Your task to perform on an android device: turn on showing notifications on the lock screen Image 0: 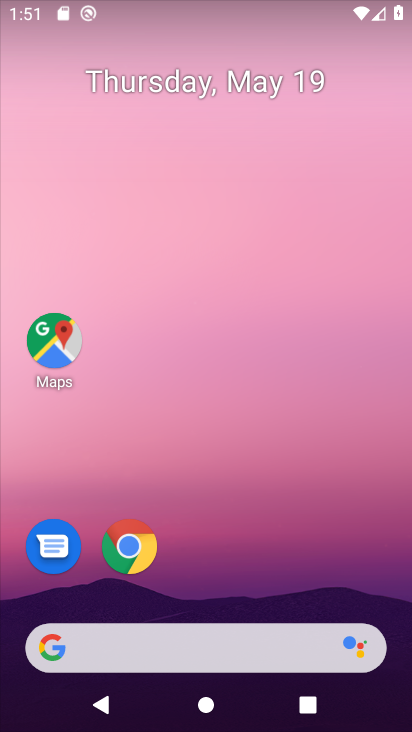
Step 0: press home button
Your task to perform on an android device: turn on showing notifications on the lock screen Image 1: 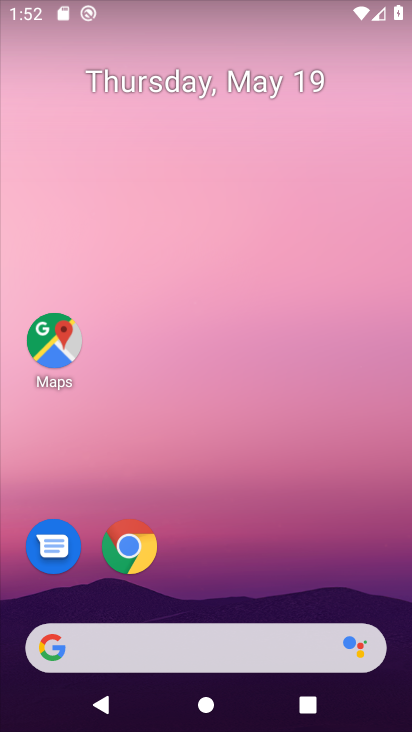
Step 1: drag from (230, 583) to (266, 12)
Your task to perform on an android device: turn on showing notifications on the lock screen Image 2: 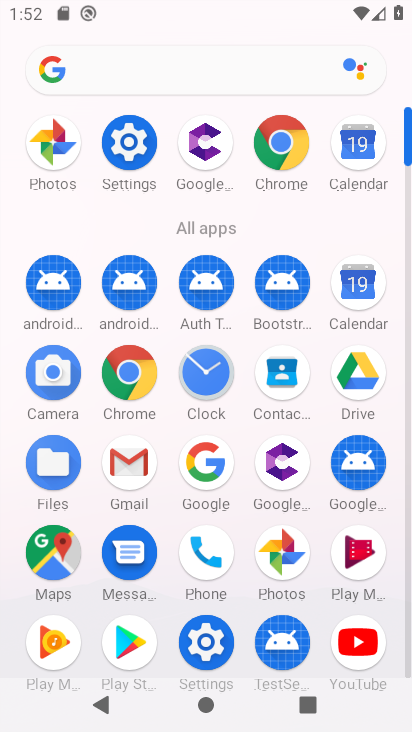
Step 2: click (128, 138)
Your task to perform on an android device: turn on showing notifications on the lock screen Image 3: 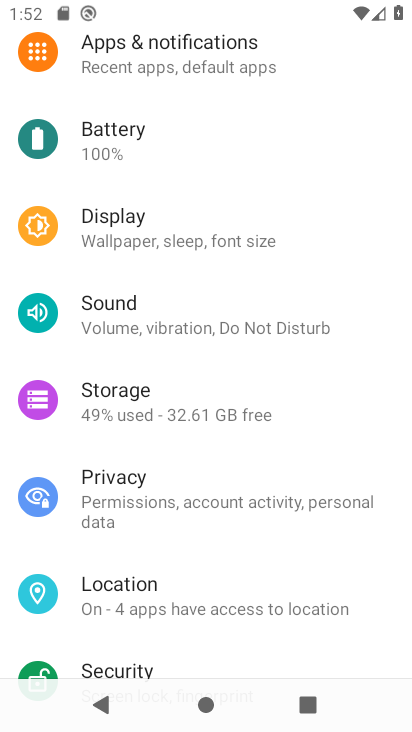
Step 3: click (176, 54)
Your task to perform on an android device: turn on showing notifications on the lock screen Image 4: 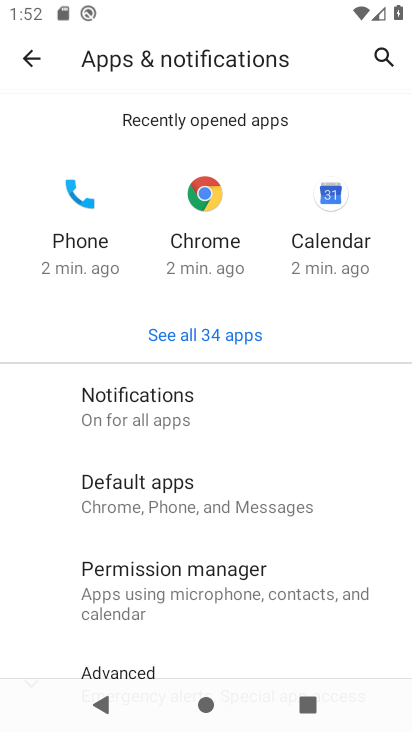
Step 4: drag from (218, 631) to (227, 257)
Your task to perform on an android device: turn on showing notifications on the lock screen Image 5: 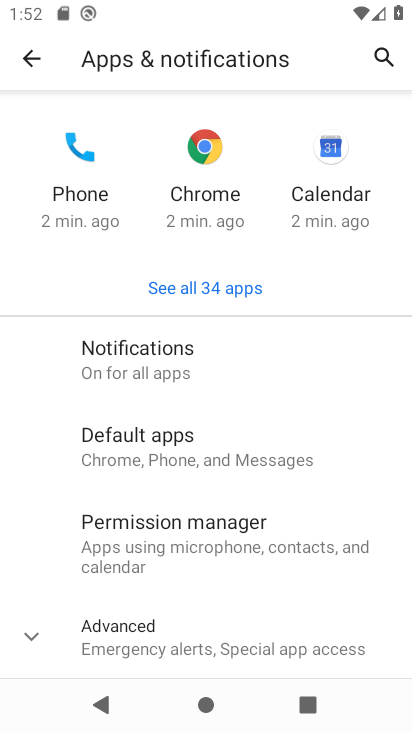
Step 5: click (208, 358)
Your task to perform on an android device: turn on showing notifications on the lock screen Image 6: 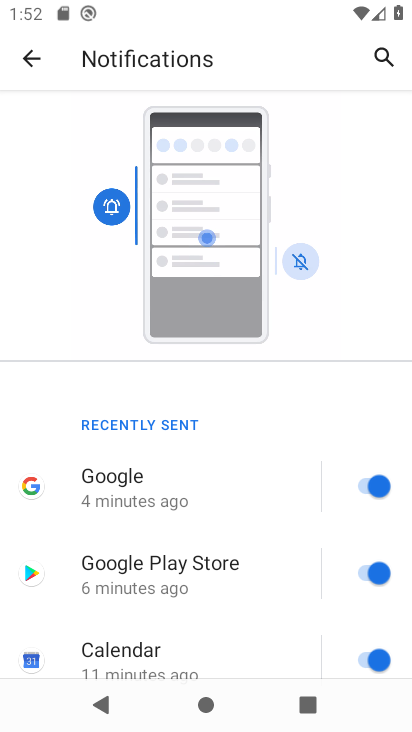
Step 6: drag from (247, 645) to (265, 259)
Your task to perform on an android device: turn on showing notifications on the lock screen Image 7: 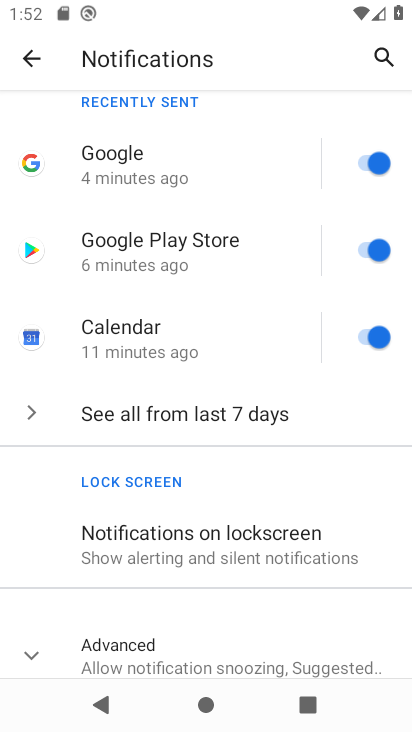
Step 7: click (343, 531)
Your task to perform on an android device: turn on showing notifications on the lock screen Image 8: 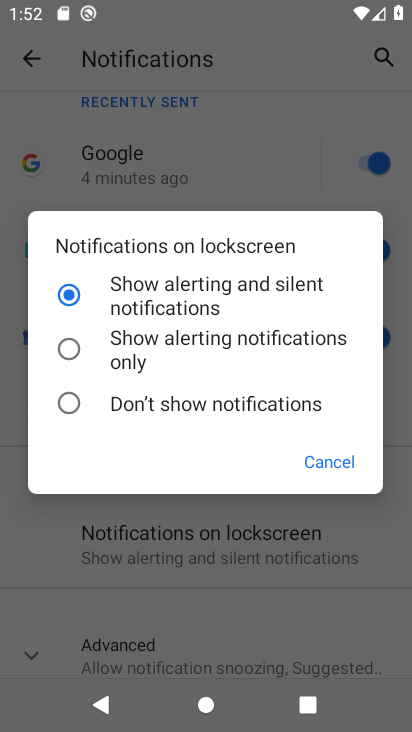
Step 8: click (70, 339)
Your task to perform on an android device: turn on showing notifications on the lock screen Image 9: 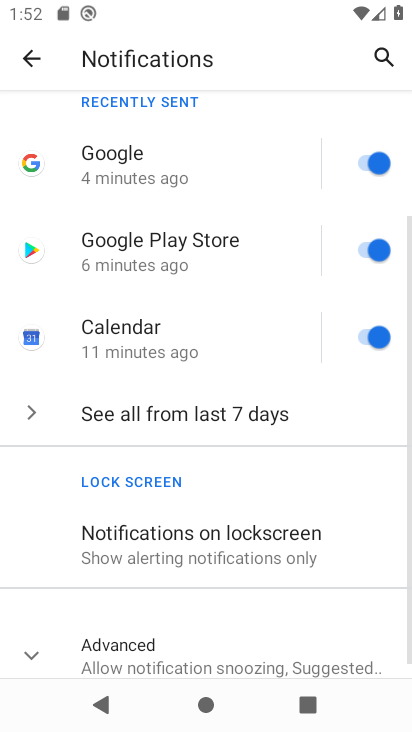
Step 9: task complete